Your task to perform on an android device: turn on location history Image 0: 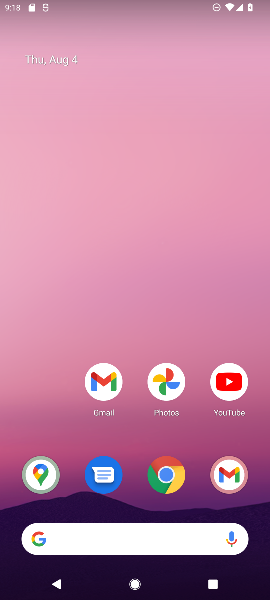
Step 0: drag from (135, 499) to (155, 251)
Your task to perform on an android device: turn on location history Image 1: 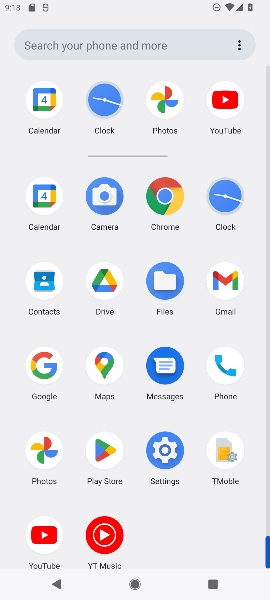
Step 1: click (159, 447)
Your task to perform on an android device: turn on location history Image 2: 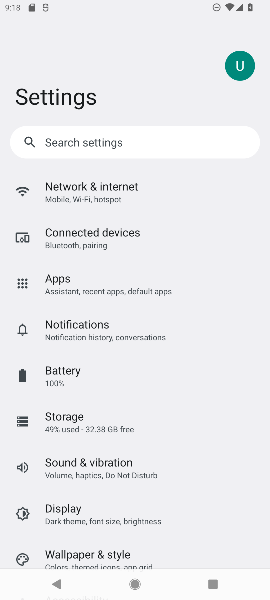
Step 2: drag from (115, 517) to (149, 189)
Your task to perform on an android device: turn on location history Image 3: 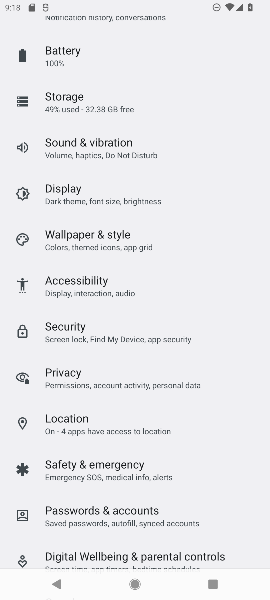
Step 3: click (96, 424)
Your task to perform on an android device: turn on location history Image 4: 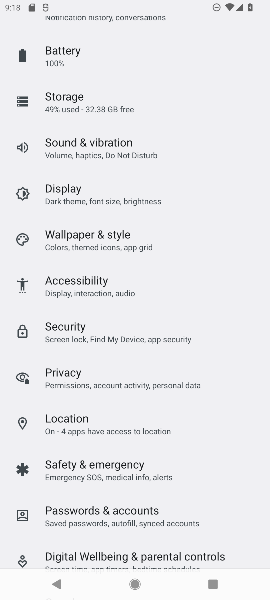
Step 4: click (96, 424)
Your task to perform on an android device: turn on location history Image 5: 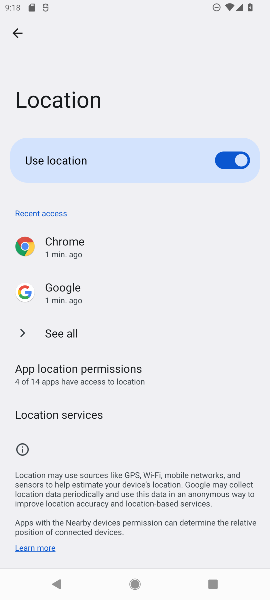
Step 5: click (89, 410)
Your task to perform on an android device: turn on location history Image 6: 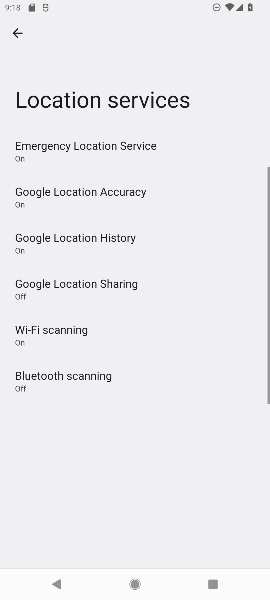
Step 6: click (113, 229)
Your task to perform on an android device: turn on location history Image 7: 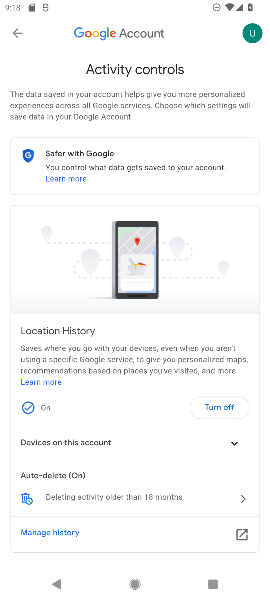
Step 7: task complete